Your task to perform on an android device: Open my contact list Image 0: 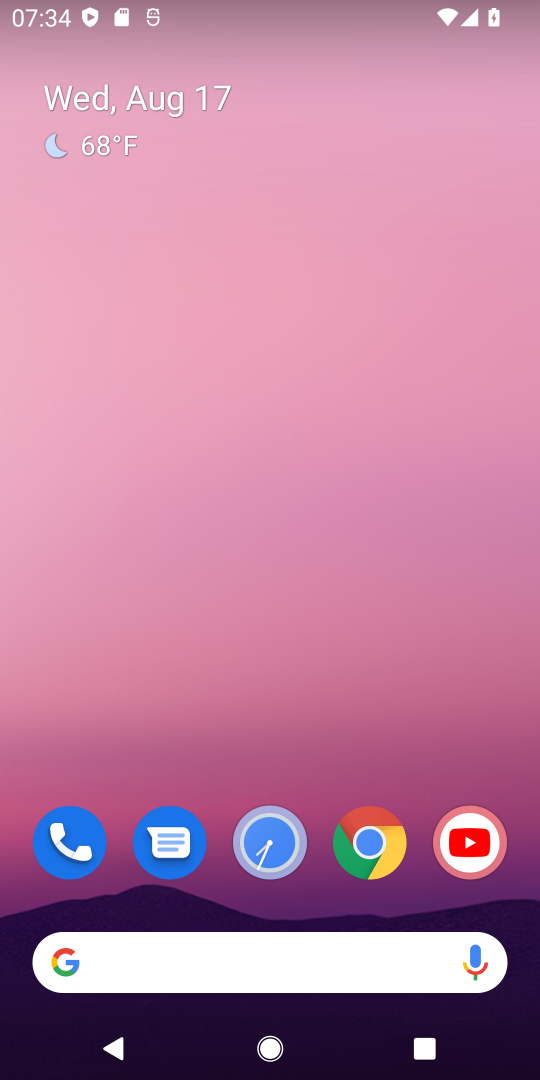
Step 0: drag from (284, 710) to (355, 0)
Your task to perform on an android device: Open my contact list Image 1: 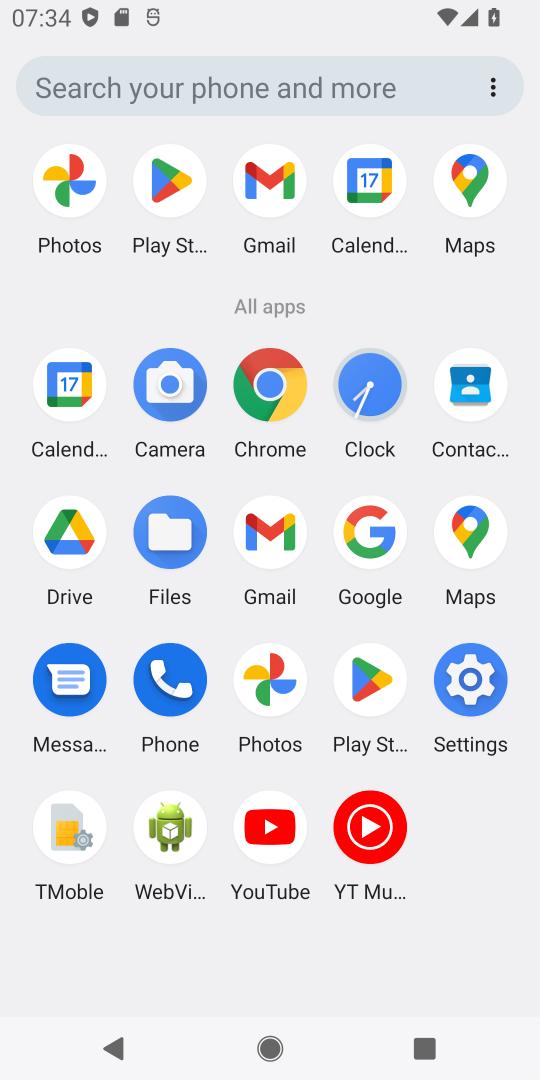
Step 1: click (475, 383)
Your task to perform on an android device: Open my contact list Image 2: 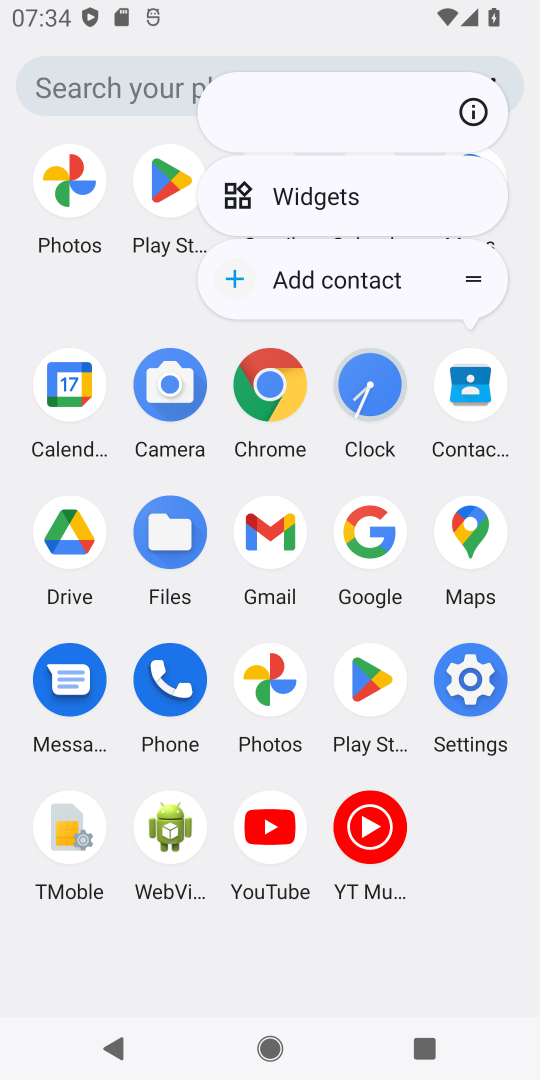
Step 2: click (475, 381)
Your task to perform on an android device: Open my contact list Image 3: 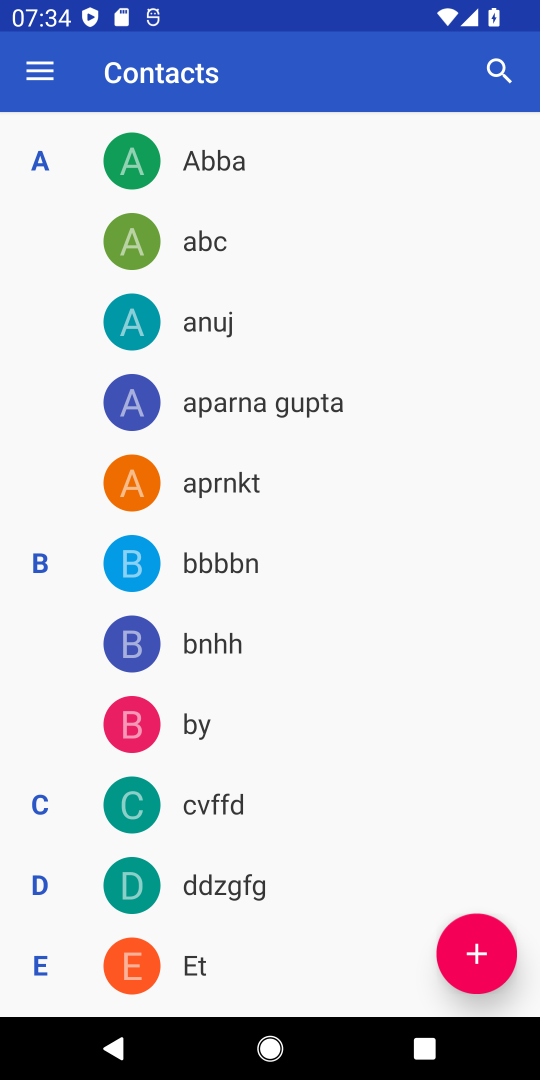
Step 3: task complete